Your task to perform on an android device: open sync settings in chrome Image 0: 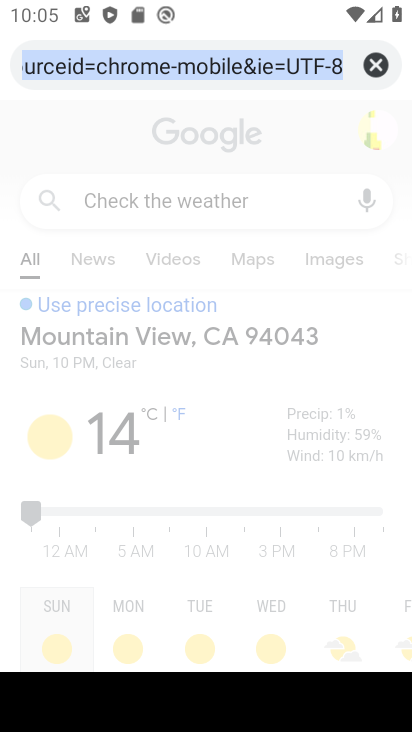
Step 0: press back button
Your task to perform on an android device: open sync settings in chrome Image 1: 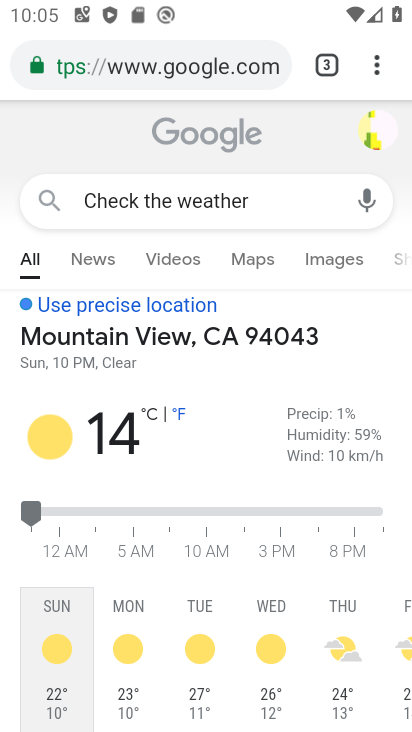
Step 1: click (389, 75)
Your task to perform on an android device: open sync settings in chrome Image 2: 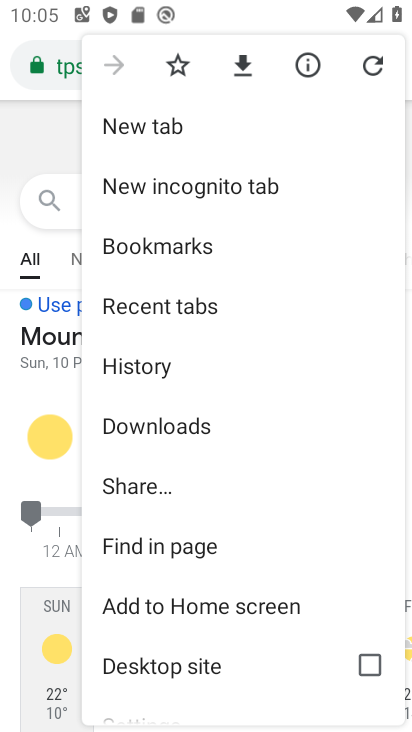
Step 2: drag from (276, 662) to (202, 319)
Your task to perform on an android device: open sync settings in chrome Image 3: 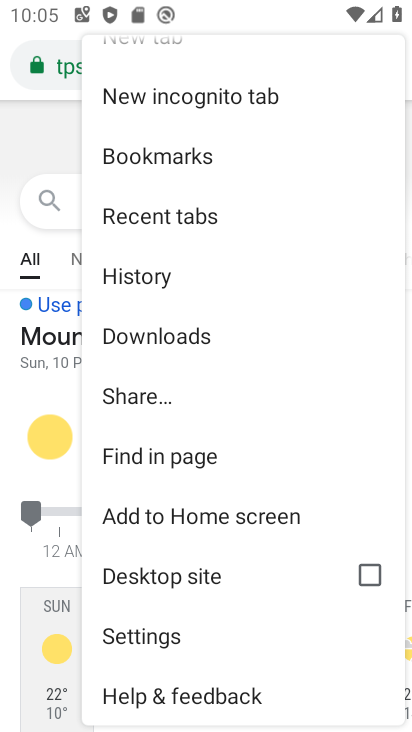
Step 3: click (180, 624)
Your task to perform on an android device: open sync settings in chrome Image 4: 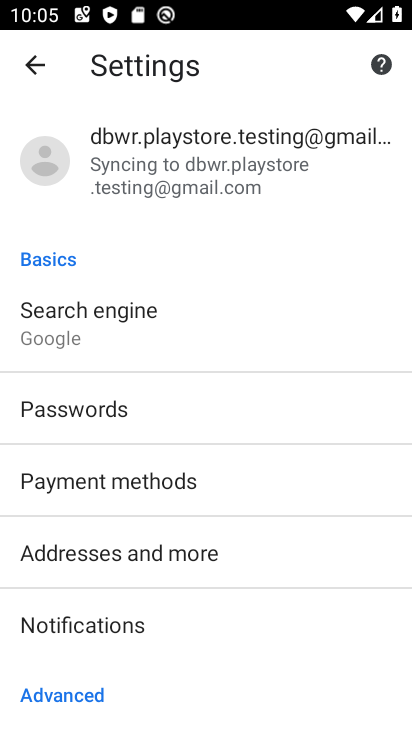
Step 4: click (229, 159)
Your task to perform on an android device: open sync settings in chrome Image 5: 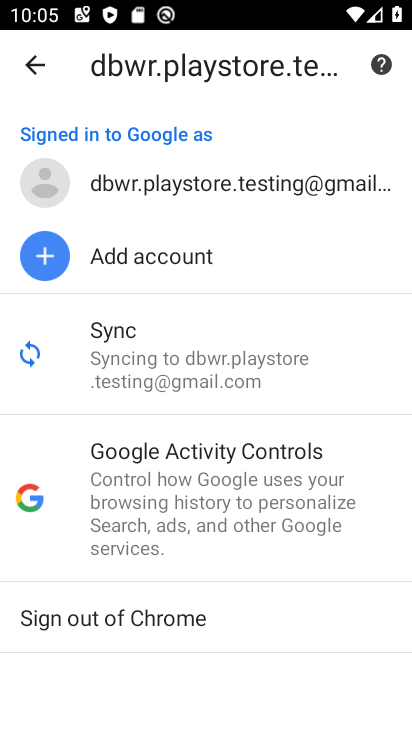
Step 5: click (212, 349)
Your task to perform on an android device: open sync settings in chrome Image 6: 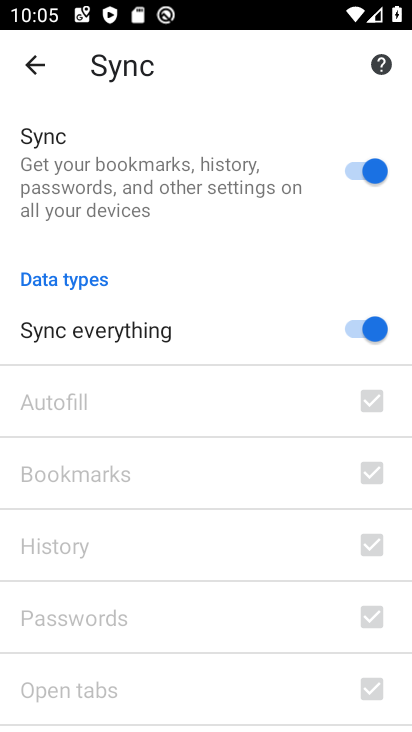
Step 6: task complete